Your task to perform on an android device: toggle location history Image 0: 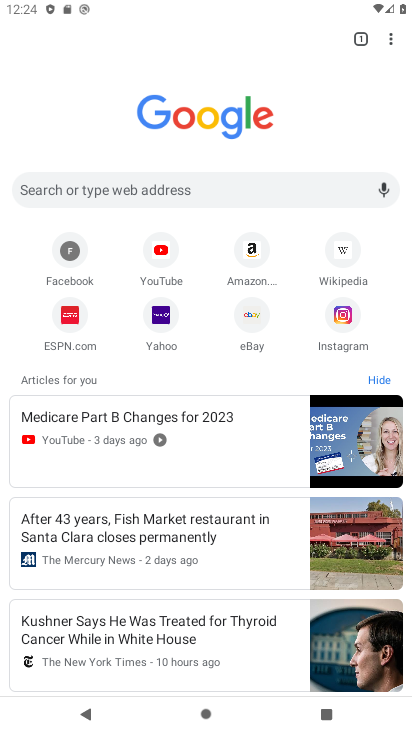
Step 0: press home button
Your task to perform on an android device: toggle location history Image 1: 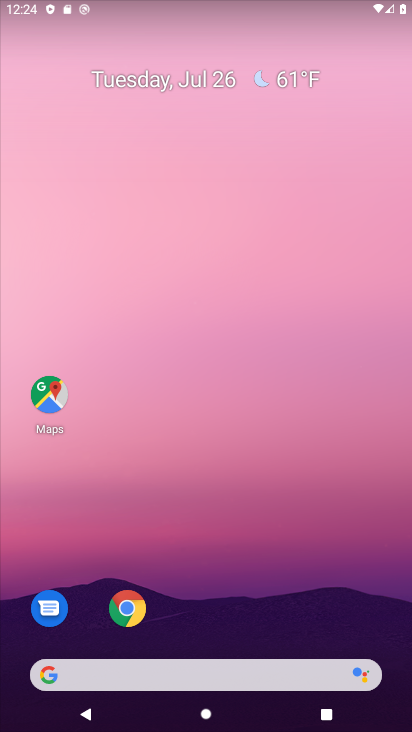
Step 1: drag from (354, 566) to (343, 126)
Your task to perform on an android device: toggle location history Image 2: 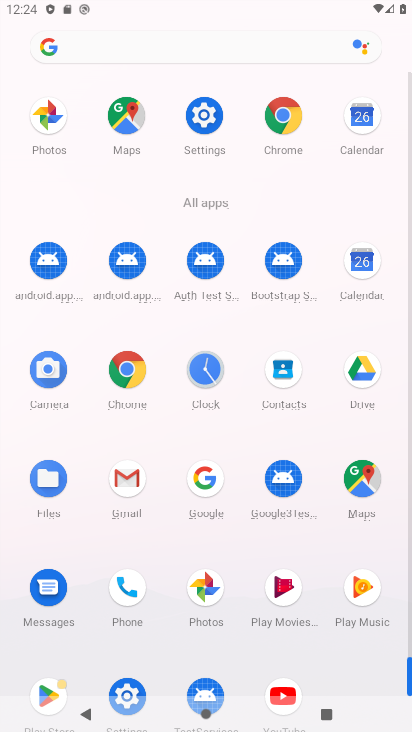
Step 2: click (207, 125)
Your task to perform on an android device: toggle location history Image 3: 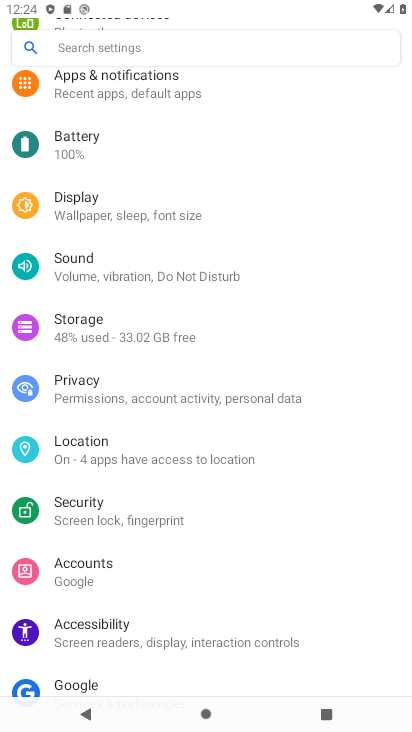
Step 3: drag from (352, 529) to (347, 430)
Your task to perform on an android device: toggle location history Image 4: 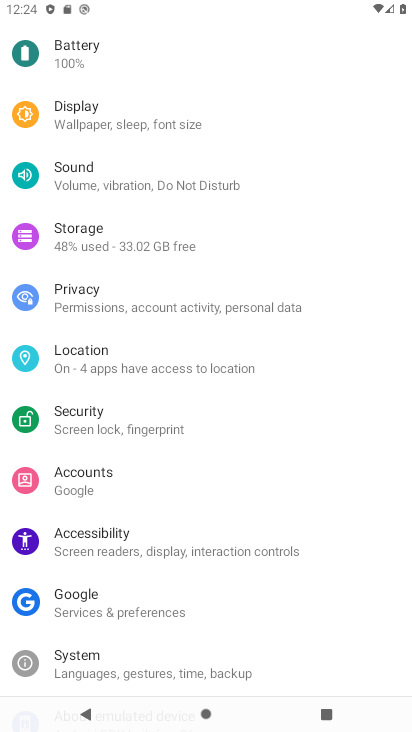
Step 4: drag from (342, 560) to (345, 457)
Your task to perform on an android device: toggle location history Image 5: 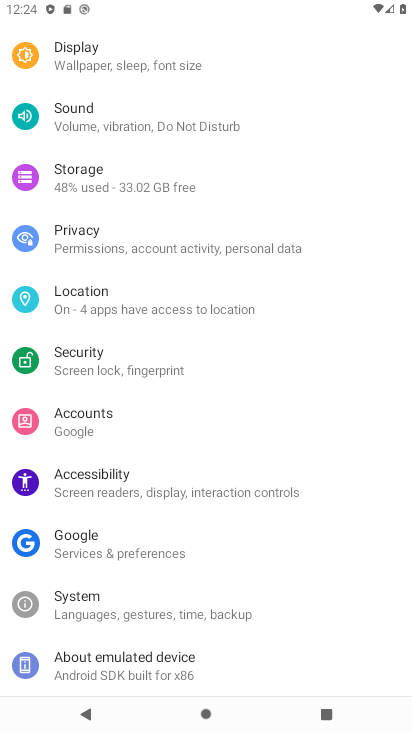
Step 5: drag from (337, 558) to (337, 479)
Your task to perform on an android device: toggle location history Image 6: 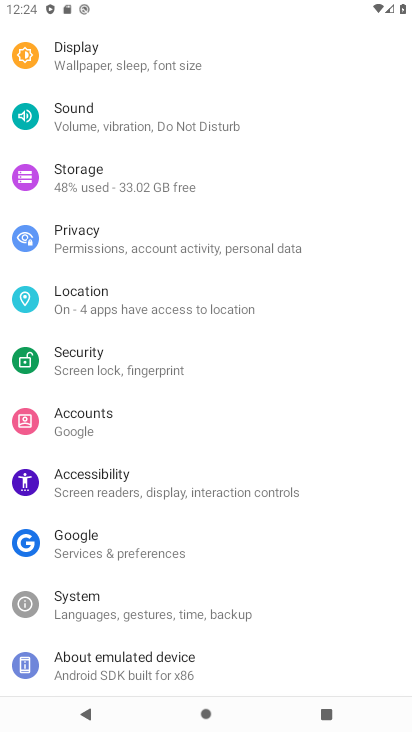
Step 6: drag from (354, 328) to (346, 420)
Your task to perform on an android device: toggle location history Image 7: 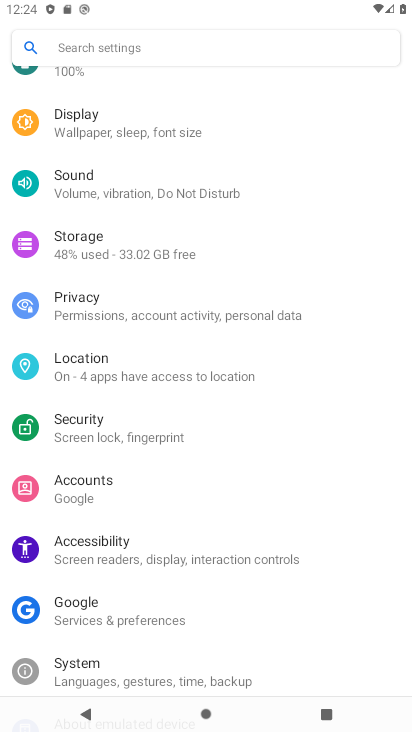
Step 7: drag from (348, 256) to (354, 378)
Your task to perform on an android device: toggle location history Image 8: 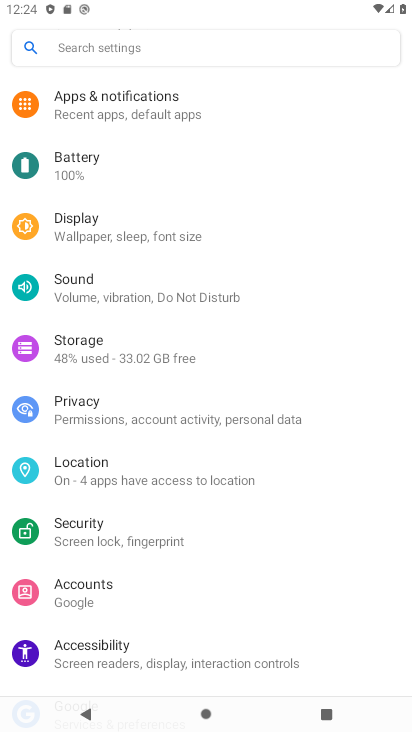
Step 8: drag from (351, 281) to (354, 454)
Your task to perform on an android device: toggle location history Image 9: 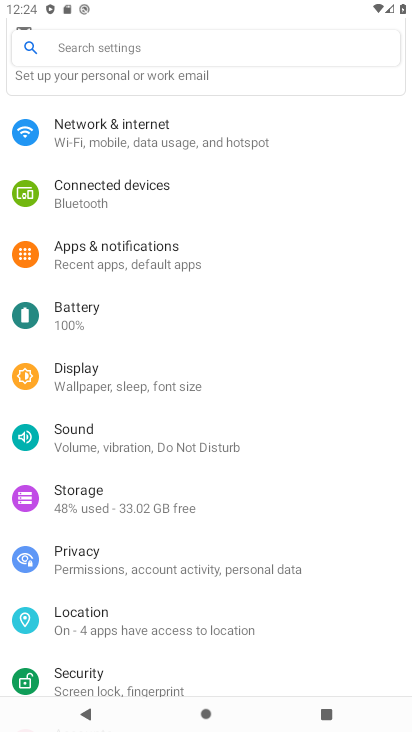
Step 9: click (249, 635)
Your task to perform on an android device: toggle location history Image 10: 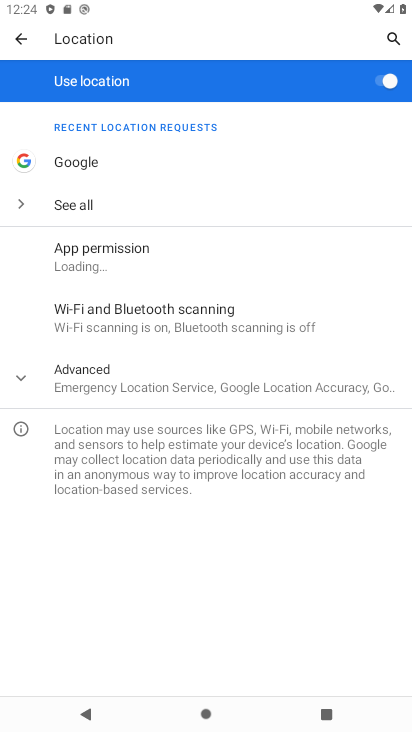
Step 10: click (344, 381)
Your task to perform on an android device: toggle location history Image 11: 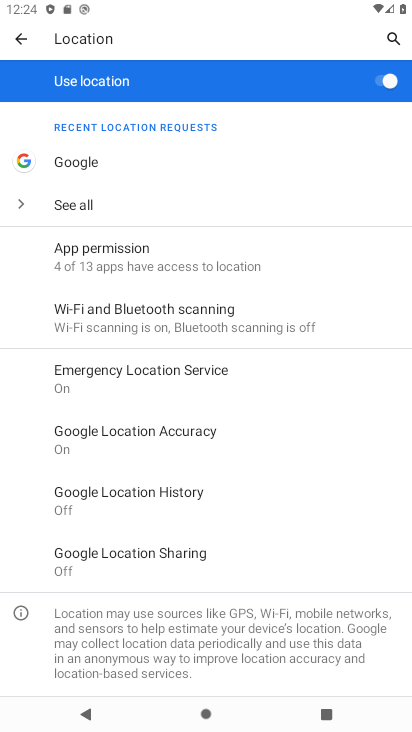
Step 11: drag from (323, 518) to (314, 435)
Your task to perform on an android device: toggle location history Image 12: 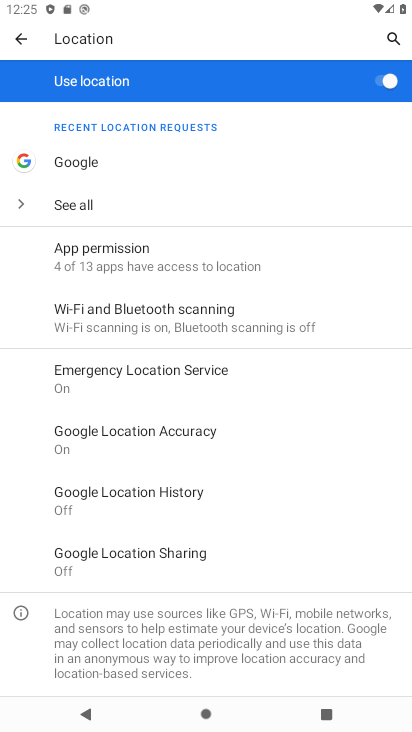
Step 12: click (188, 500)
Your task to perform on an android device: toggle location history Image 13: 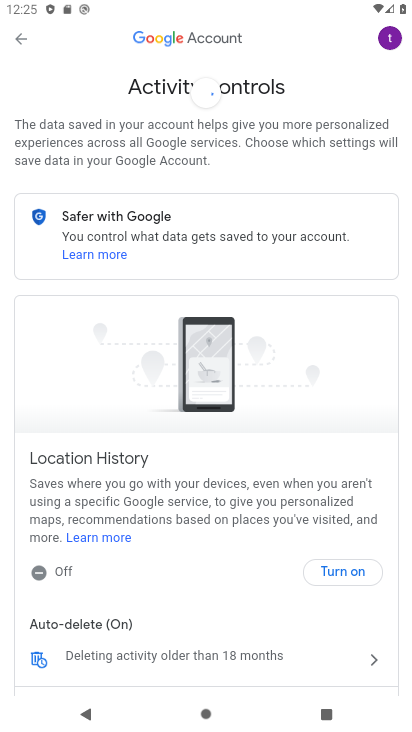
Step 13: click (348, 571)
Your task to perform on an android device: toggle location history Image 14: 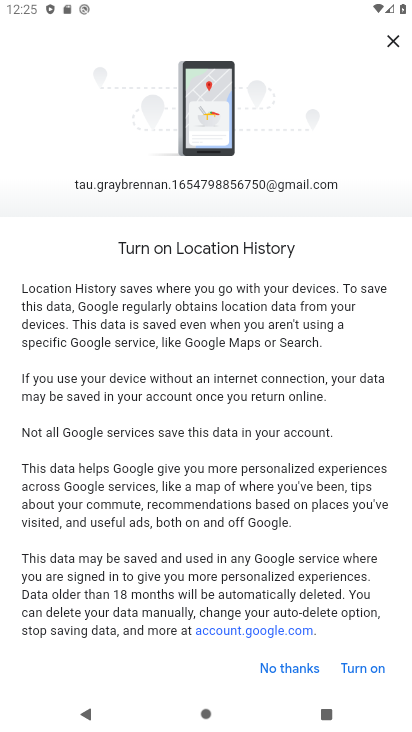
Step 14: drag from (234, 462) to (263, 291)
Your task to perform on an android device: toggle location history Image 15: 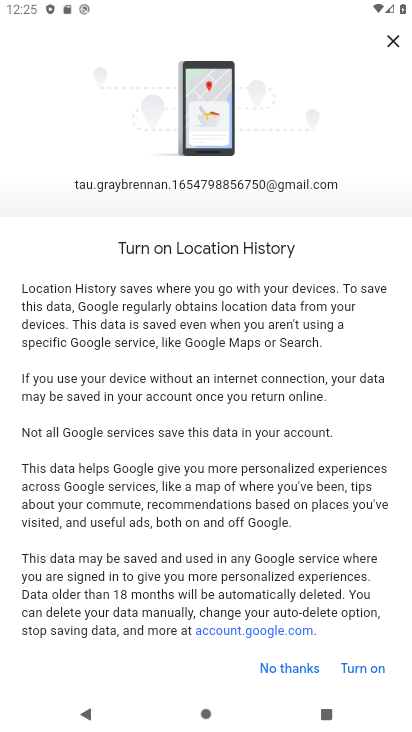
Step 15: click (364, 666)
Your task to perform on an android device: toggle location history Image 16: 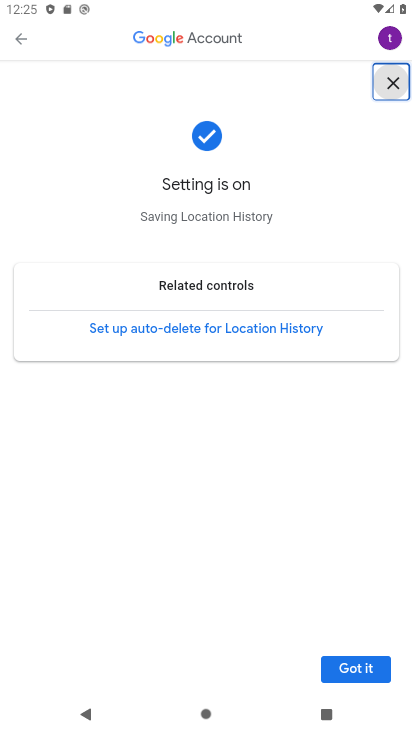
Step 16: task complete